Your task to perform on an android device: Set an alarm for 6pm Image 0: 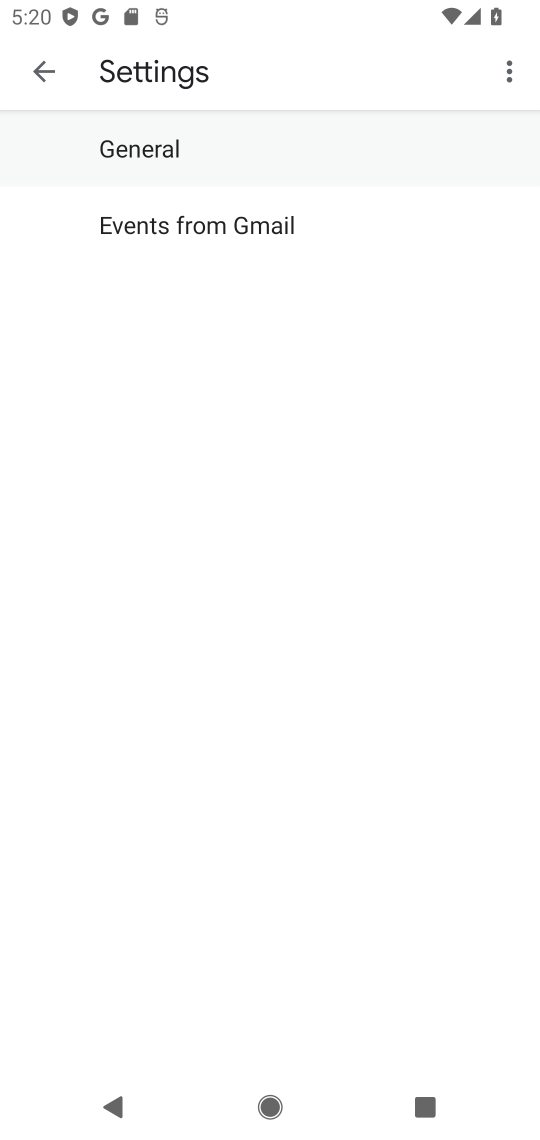
Step 0: press home button
Your task to perform on an android device: Set an alarm for 6pm Image 1: 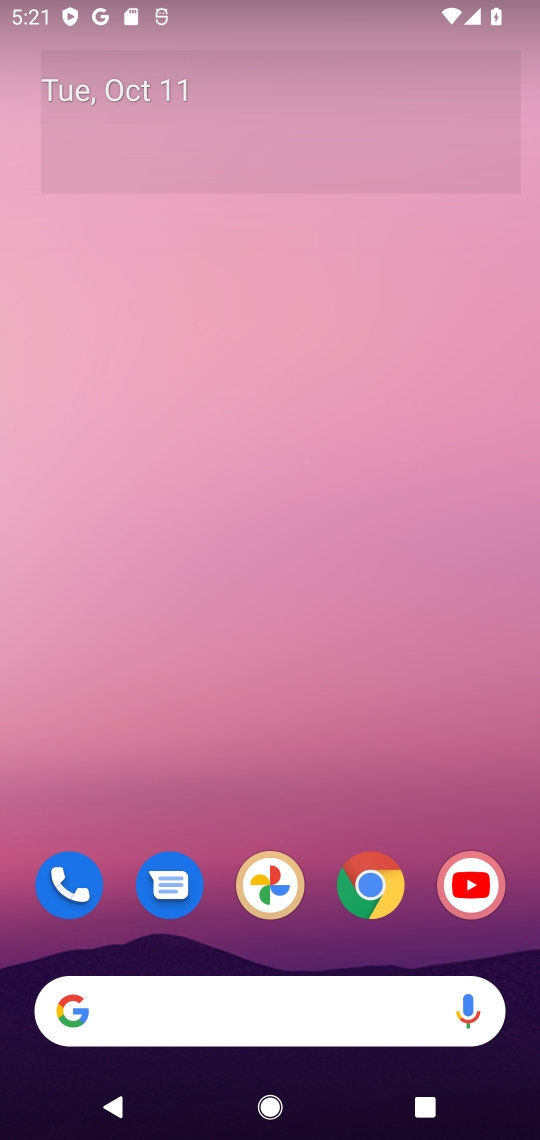
Step 1: drag from (54, 289) to (109, 1053)
Your task to perform on an android device: Set an alarm for 6pm Image 2: 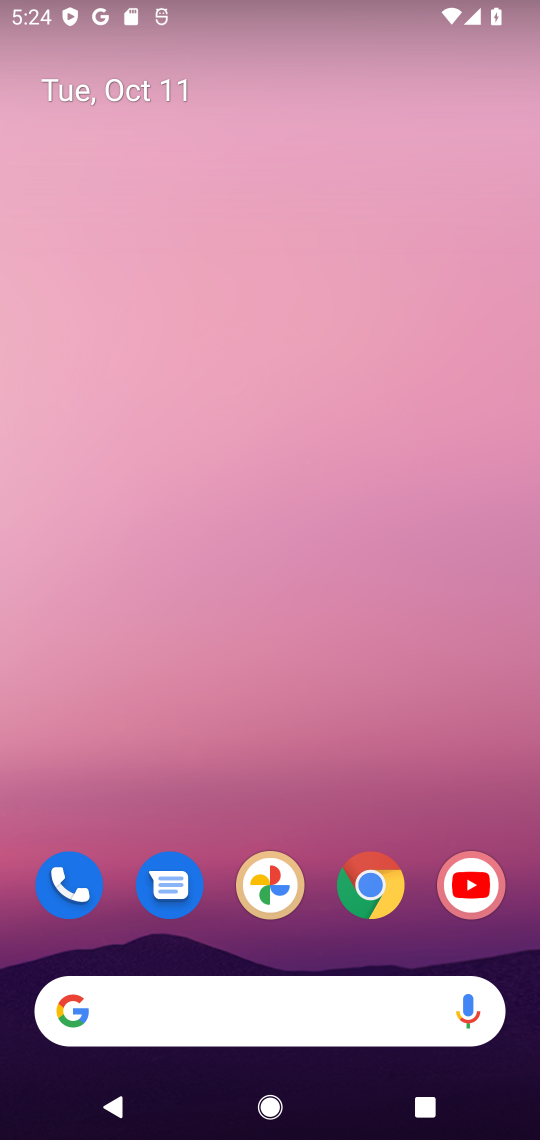
Step 2: drag from (372, 353) to (404, 170)
Your task to perform on an android device: Set an alarm for 6pm Image 3: 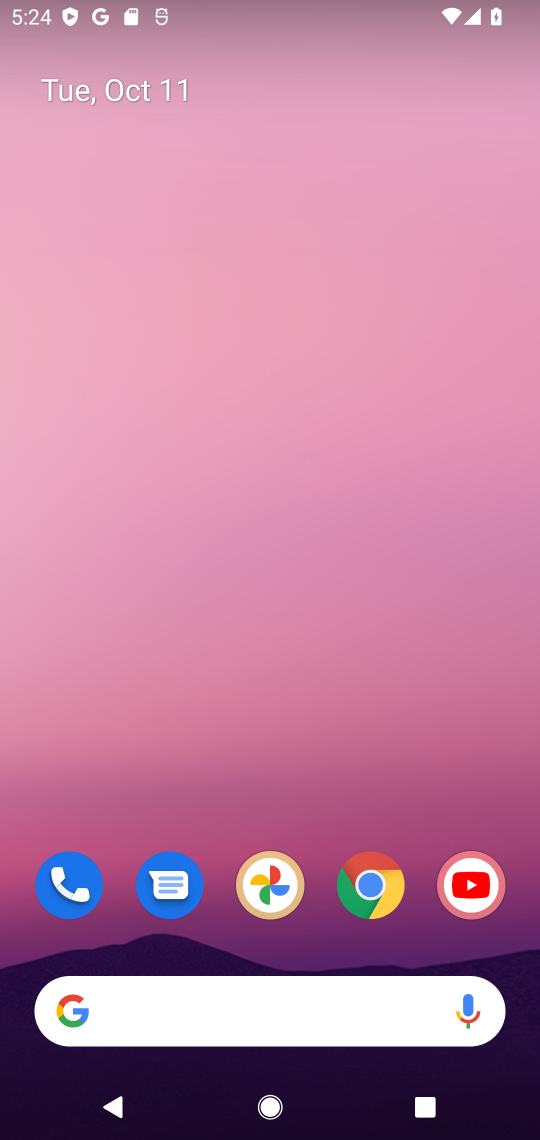
Step 3: drag from (260, 916) to (261, 91)
Your task to perform on an android device: Set an alarm for 6pm Image 4: 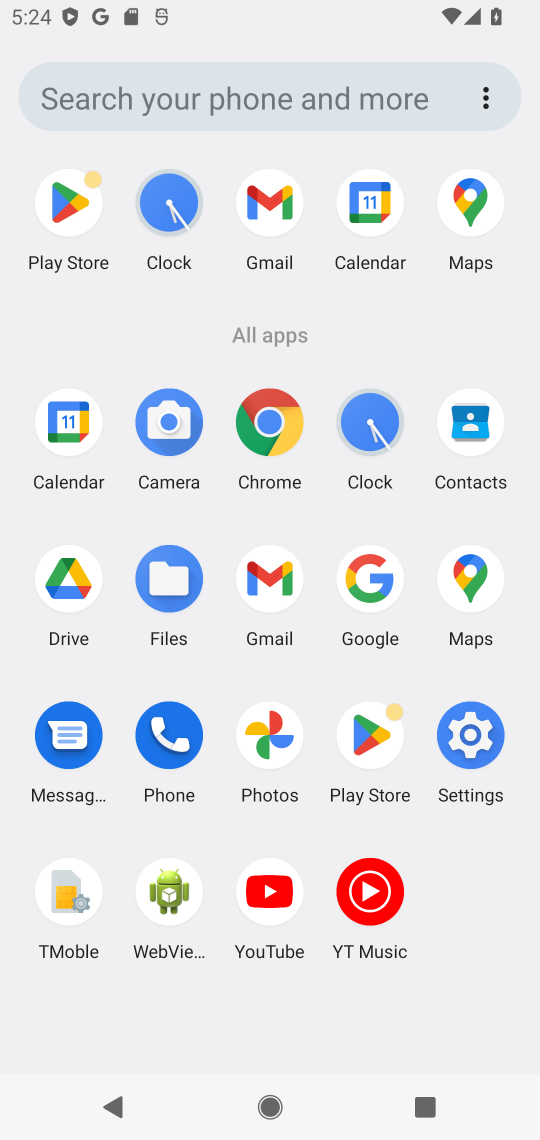
Step 4: click (368, 433)
Your task to perform on an android device: Set an alarm for 6pm Image 5: 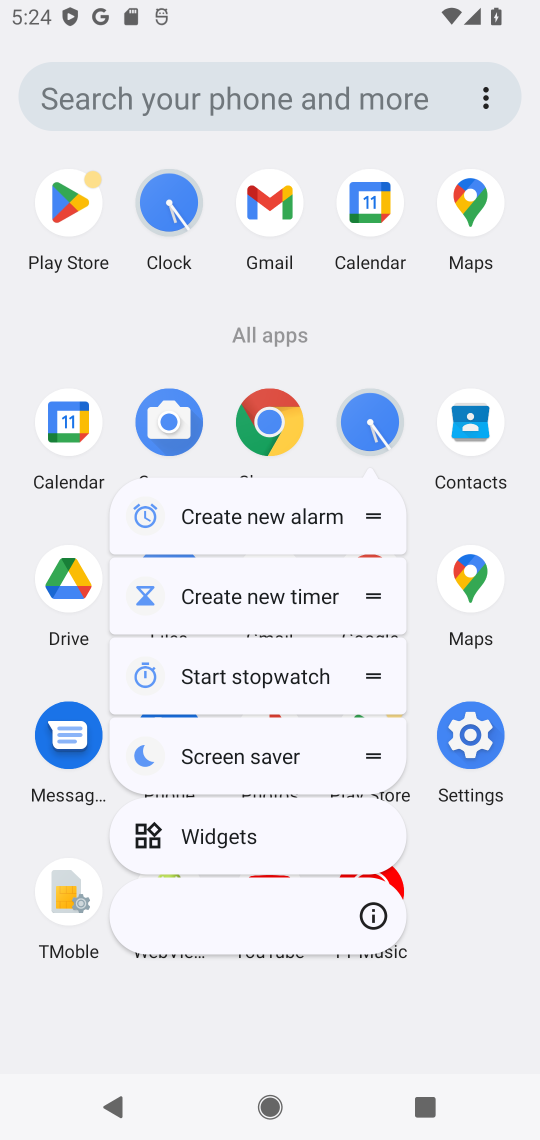
Step 5: click (368, 435)
Your task to perform on an android device: Set an alarm for 6pm Image 6: 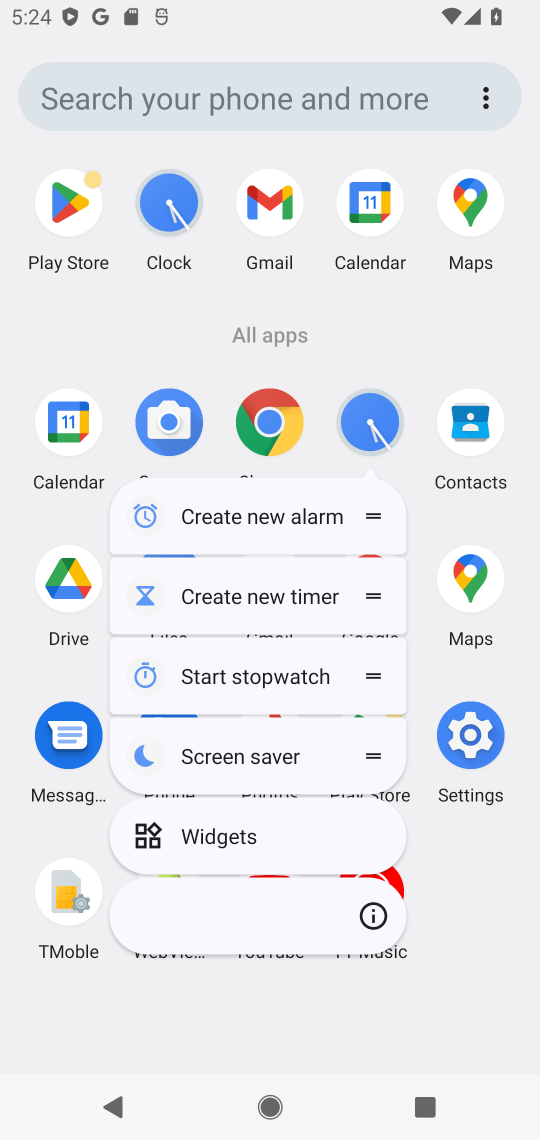
Step 6: click (383, 427)
Your task to perform on an android device: Set an alarm for 6pm Image 7: 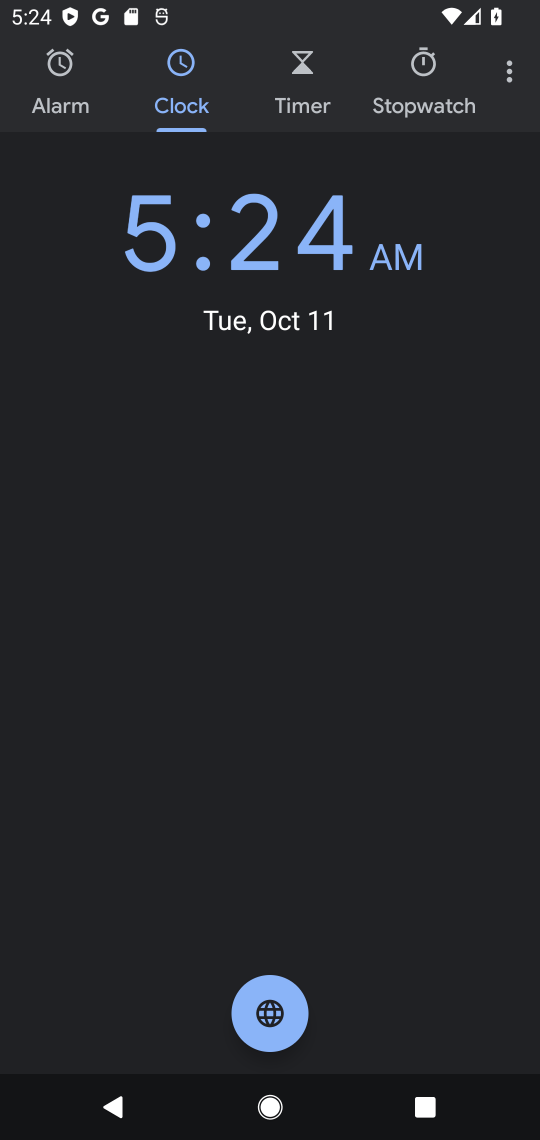
Step 7: click (49, 77)
Your task to perform on an android device: Set an alarm for 6pm Image 8: 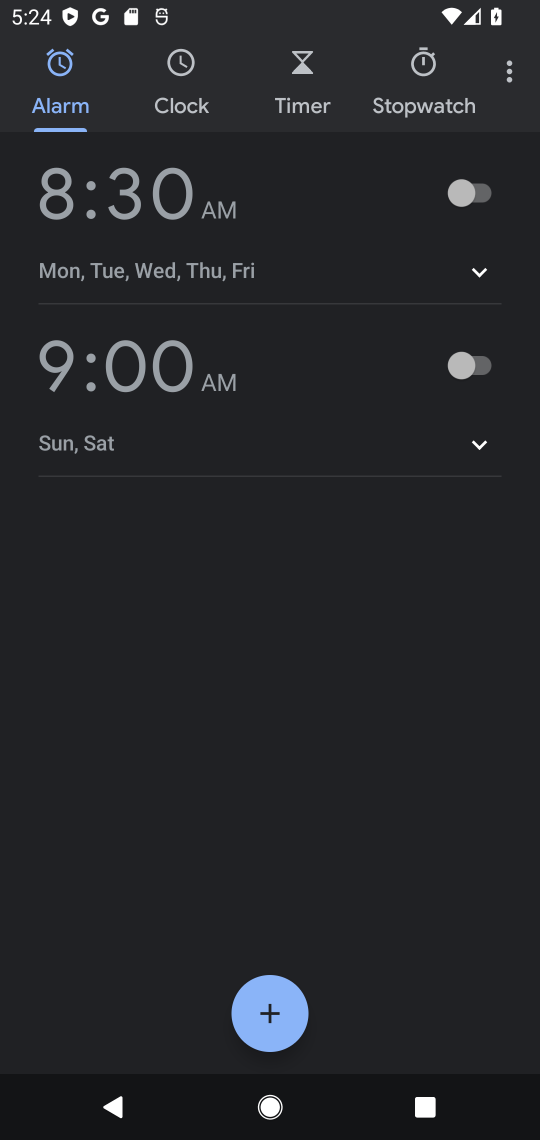
Step 8: click (269, 1015)
Your task to perform on an android device: Set an alarm for 6pm Image 9: 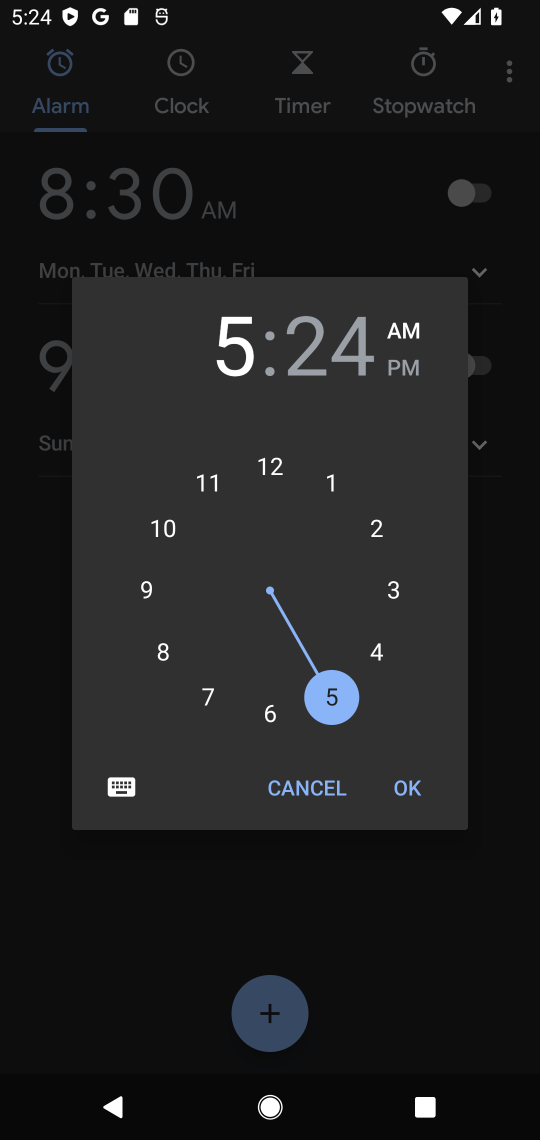
Step 9: click (279, 714)
Your task to perform on an android device: Set an alarm for 6pm Image 10: 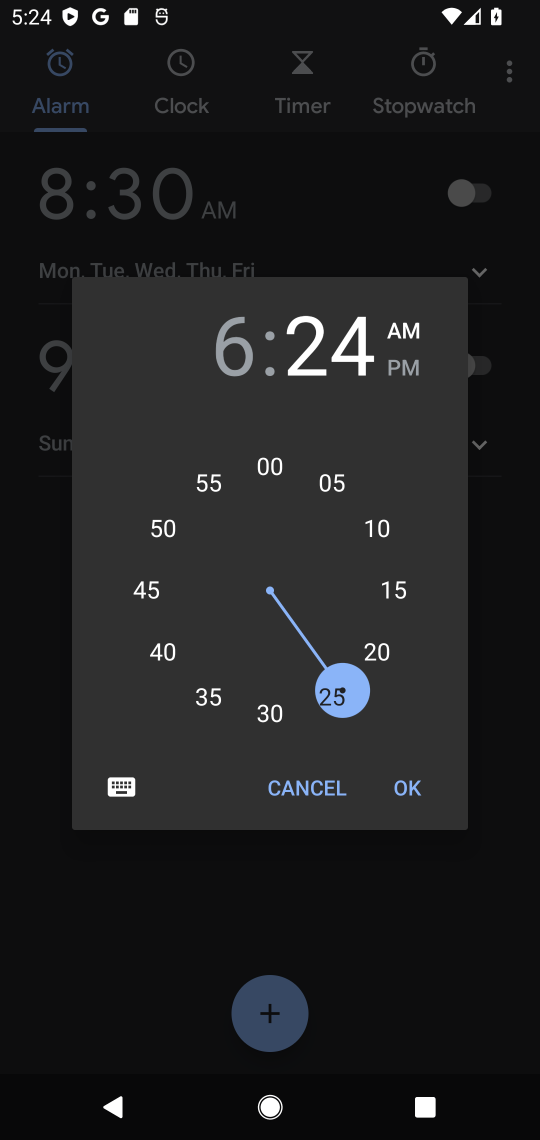
Step 10: click (405, 790)
Your task to perform on an android device: Set an alarm for 6pm Image 11: 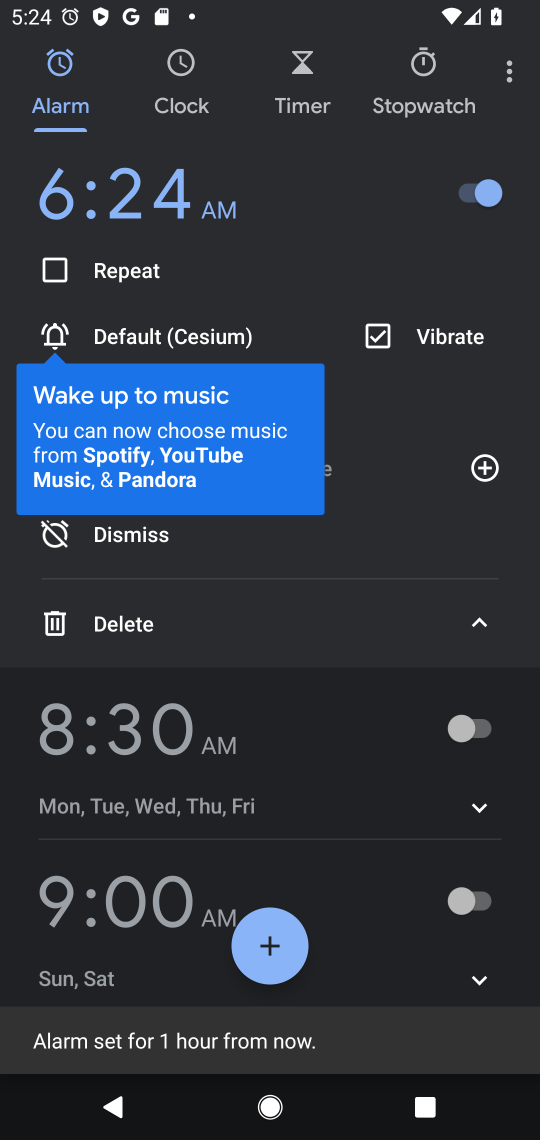
Step 11: task complete